Your task to perform on an android device: open app "Microsoft Excel" Image 0: 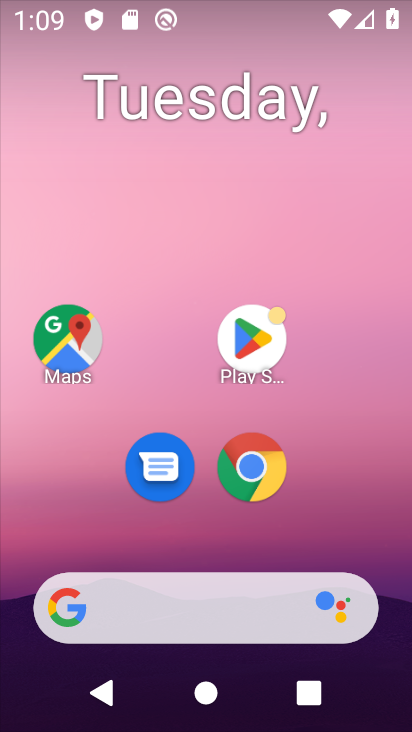
Step 0: press home button
Your task to perform on an android device: open app "Microsoft Excel" Image 1: 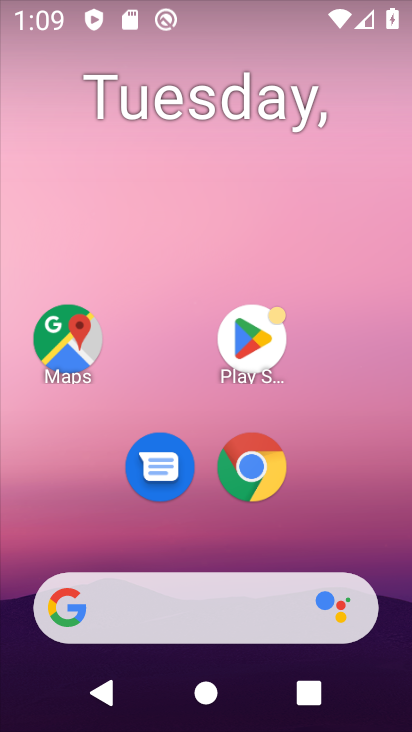
Step 1: click (259, 356)
Your task to perform on an android device: open app "Microsoft Excel" Image 2: 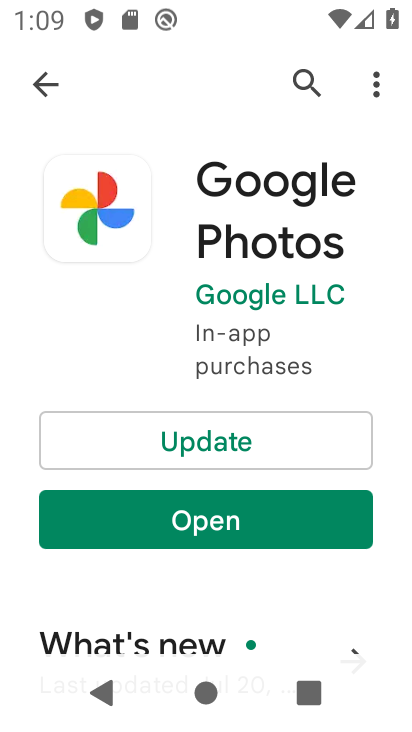
Step 2: click (308, 81)
Your task to perform on an android device: open app "Microsoft Excel" Image 3: 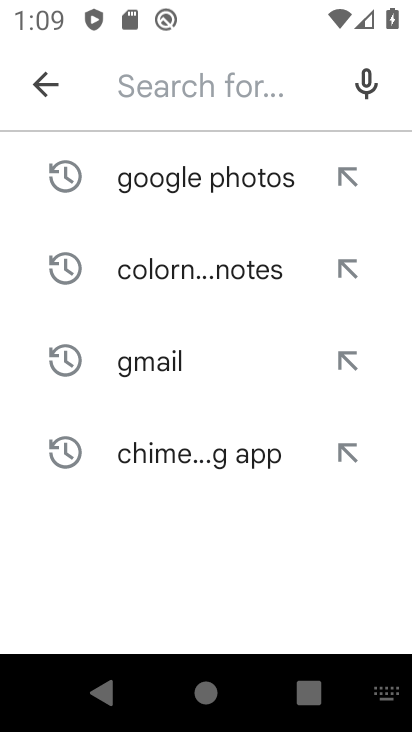
Step 3: type "Microsoft Excel"
Your task to perform on an android device: open app "Microsoft Excel" Image 4: 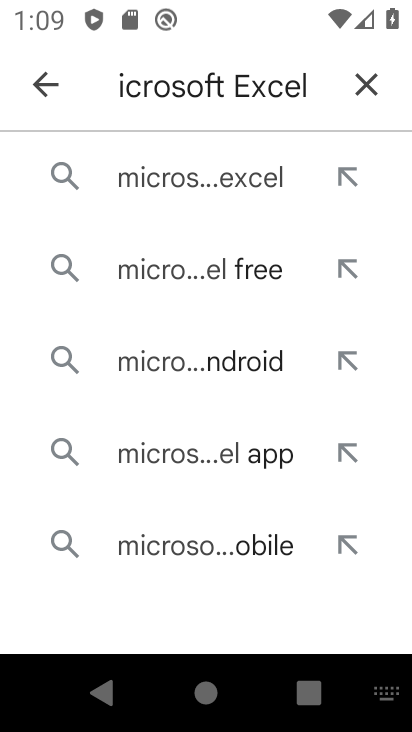
Step 4: click (231, 179)
Your task to perform on an android device: open app "Microsoft Excel" Image 5: 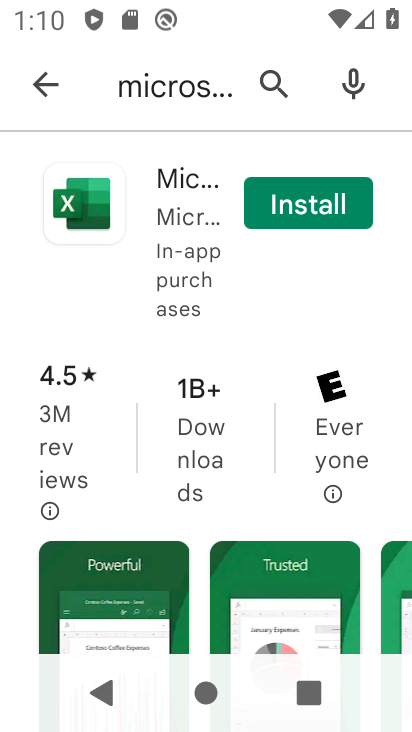
Step 5: task complete